Your task to perform on an android device: delete the emails in spam in the gmail app Image 0: 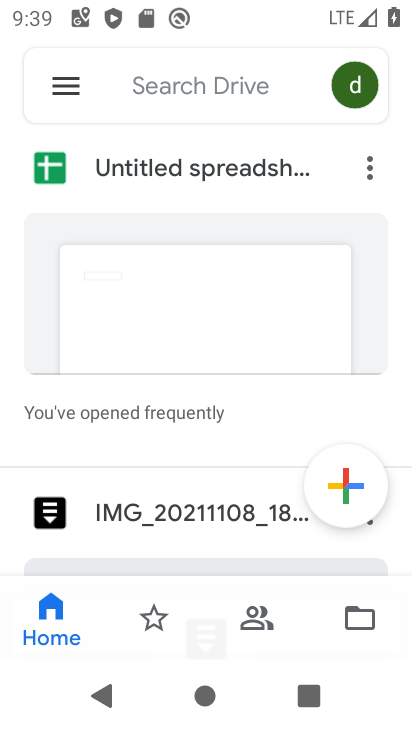
Step 0: press home button
Your task to perform on an android device: delete the emails in spam in the gmail app Image 1: 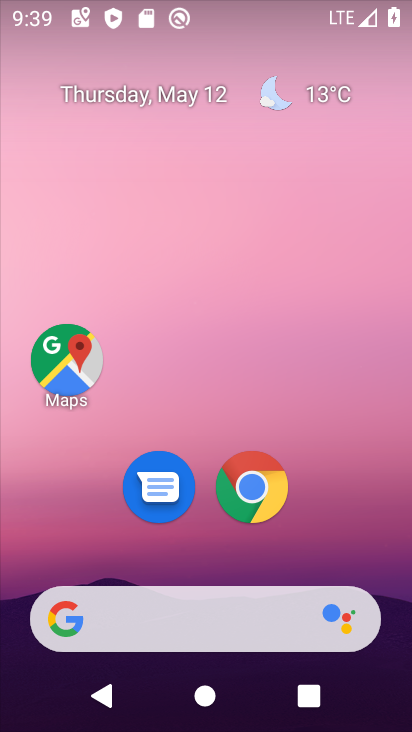
Step 1: drag from (336, 522) to (300, 11)
Your task to perform on an android device: delete the emails in spam in the gmail app Image 2: 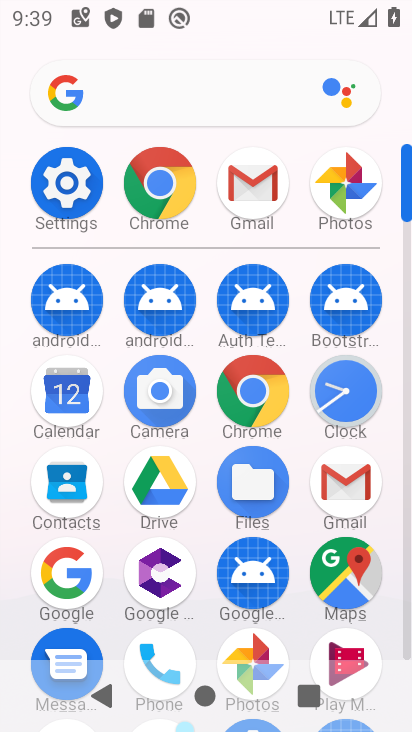
Step 2: click (252, 190)
Your task to perform on an android device: delete the emails in spam in the gmail app Image 3: 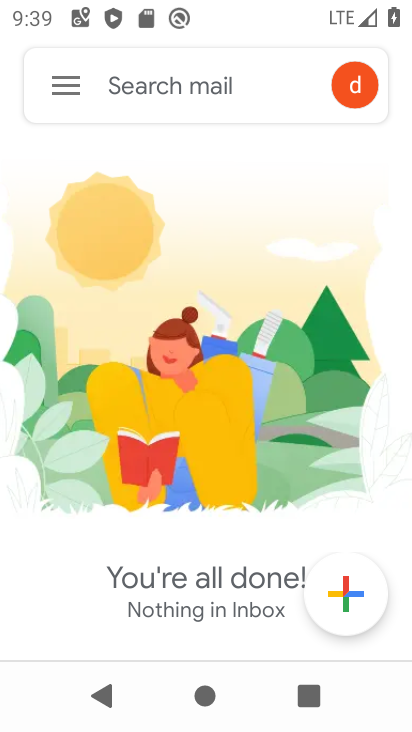
Step 3: click (58, 94)
Your task to perform on an android device: delete the emails in spam in the gmail app Image 4: 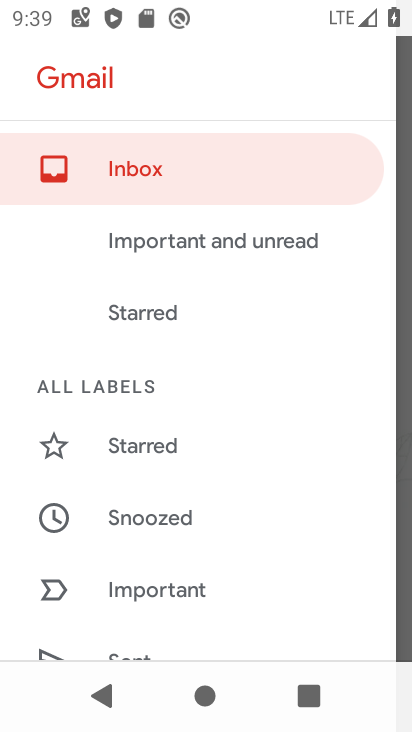
Step 4: drag from (241, 529) to (252, 127)
Your task to perform on an android device: delete the emails in spam in the gmail app Image 5: 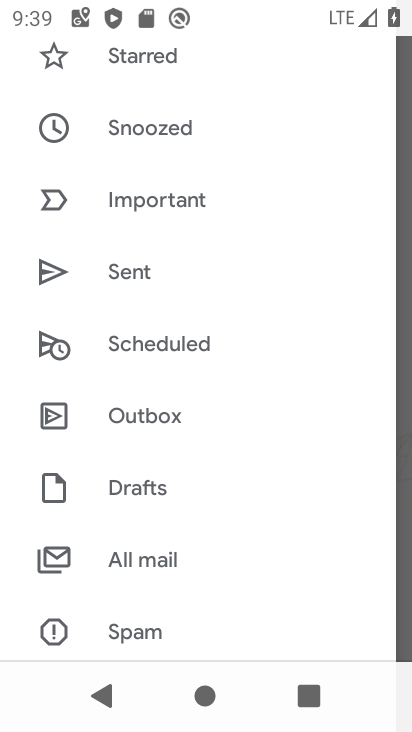
Step 5: click (153, 629)
Your task to perform on an android device: delete the emails in spam in the gmail app Image 6: 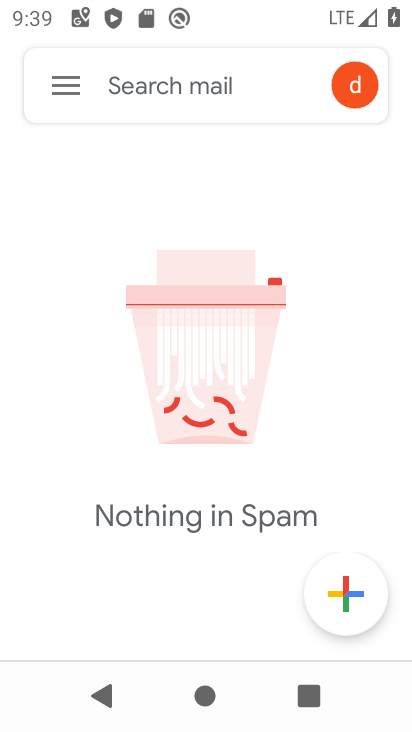
Step 6: task complete